Your task to perform on an android device: change the clock style Image 0: 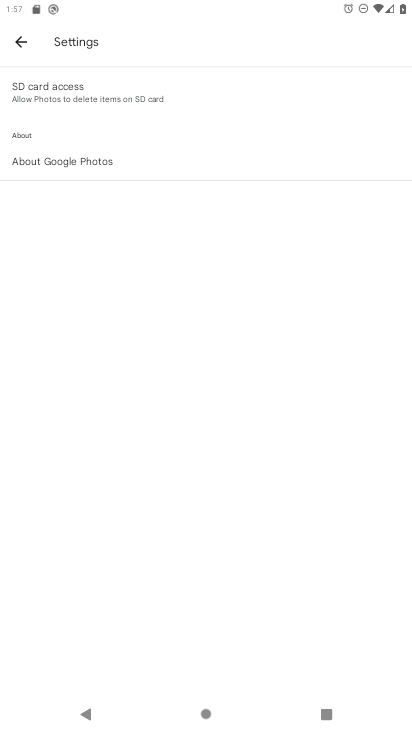
Step 0: press home button
Your task to perform on an android device: change the clock style Image 1: 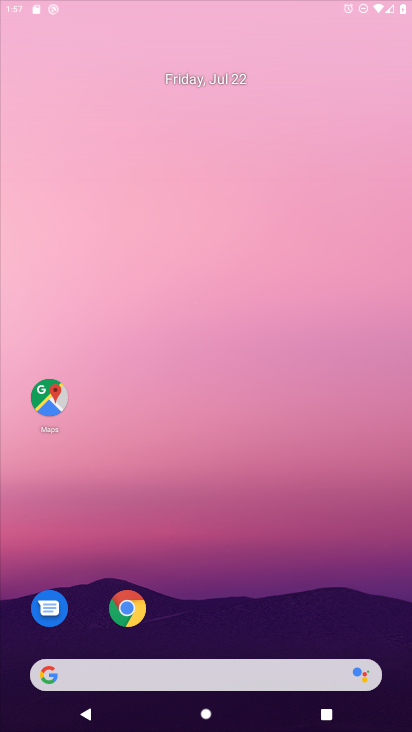
Step 1: drag from (402, 672) to (113, 0)
Your task to perform on an android device: change the clock style Image 2: 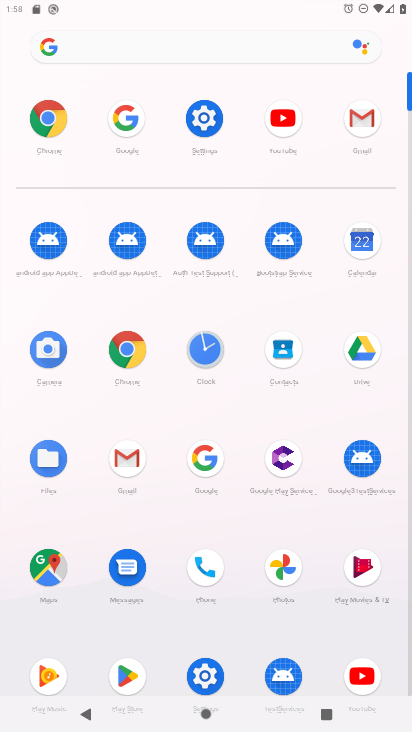
Step 2: click (198, 342)
Your task to perform on an android device: change the clock style Image 3: 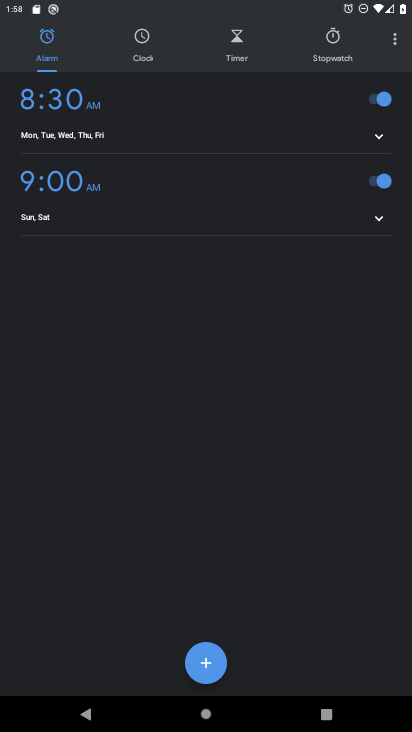
Step 3: click (388, 39)
Your task to perform on an android device: change the clock style Image 4: 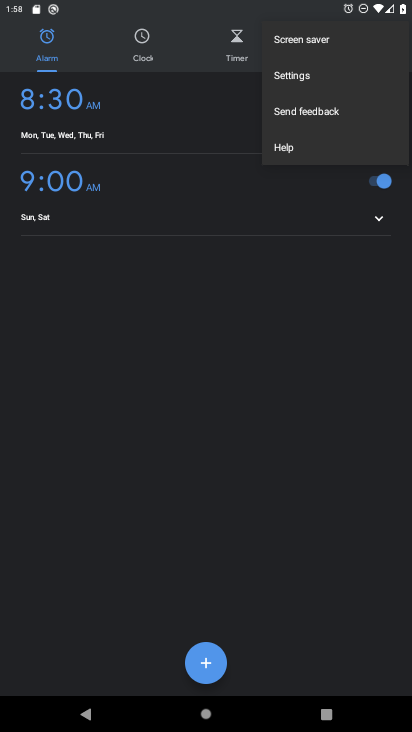
Step 4: click (306, 76)
Your task to perform on an android device: change the clock style Image 5: 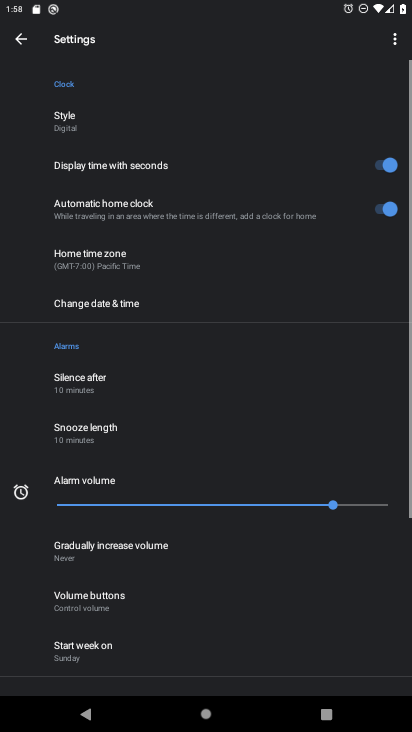
Step 5: click (122, 118)
Your task to perform on an android device: change the clock style Image 6: 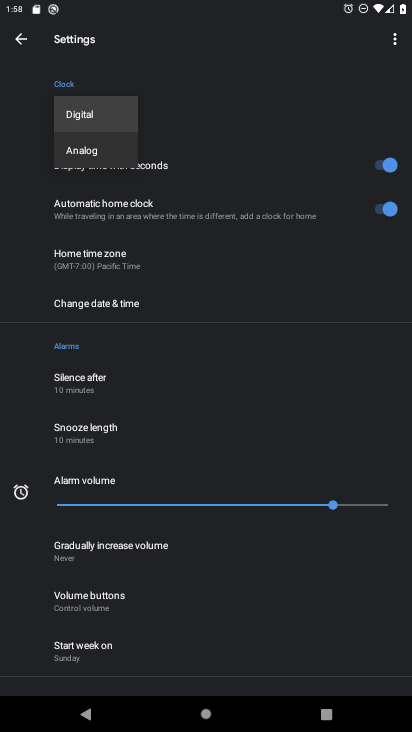
Step 6: click (84, 157)
Your task to perform on an android device: change the clock style Image 7: 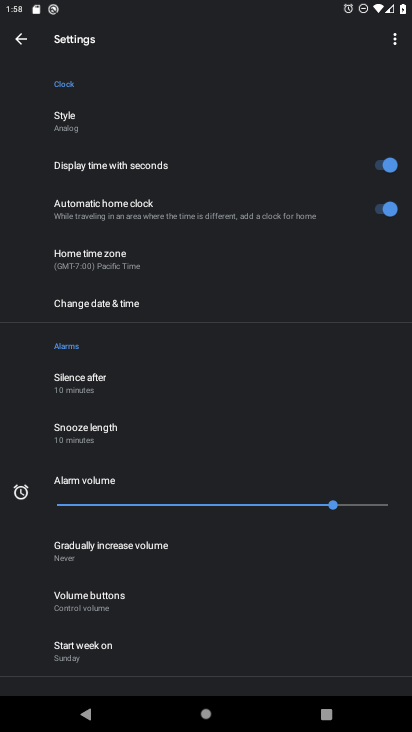
Step 7: task complete